Your task to perform on an android device: add a contact Image 0: 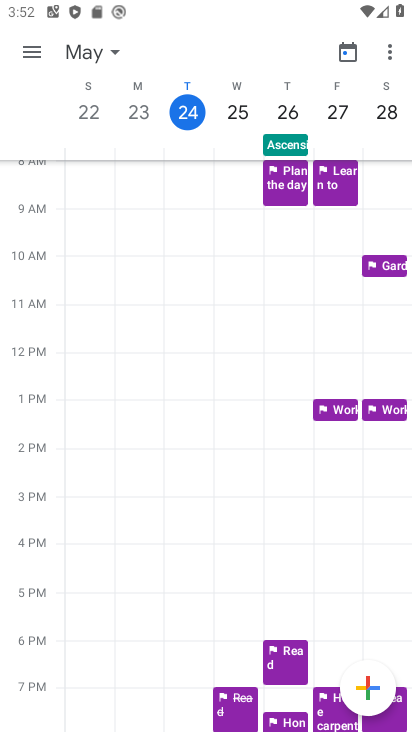
Step 0: press home button
Your task to perform on an android device: add a contact Image 1: 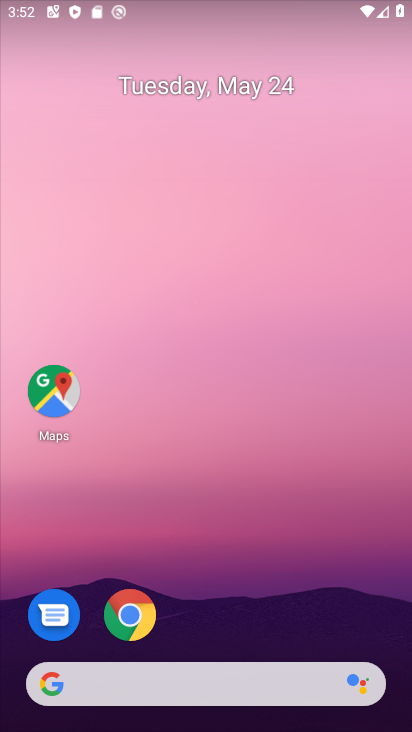
Step 1: drag from (200, 730) to (153, 180)
Your task to perform on an android device: add a contact Image 2: 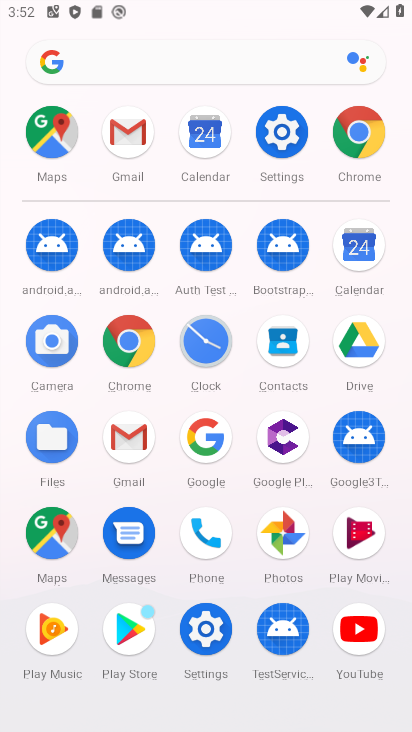
Step 2: click (282, 336)
Your task to perform on an android device: add a contact Image 3: 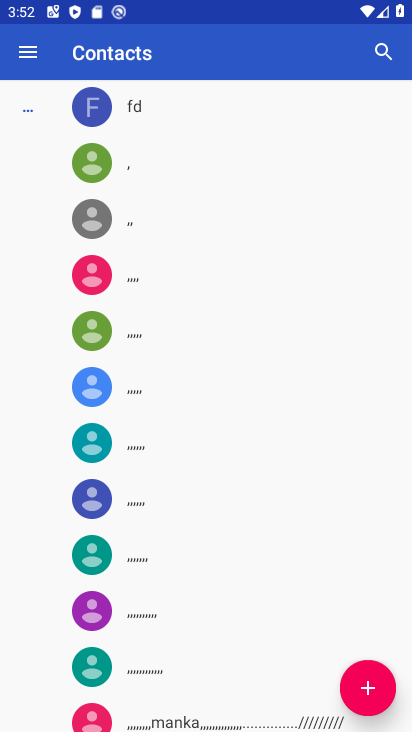
Step 3: click (366, 689)
Your task to perform on an android device: add a contact Image 4: 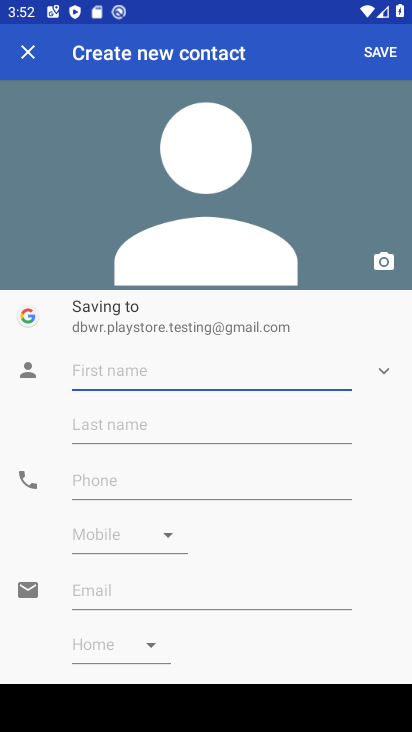
Step 4: type "seeta ma"
Your task to perform on an android device: add a contact Image 5: 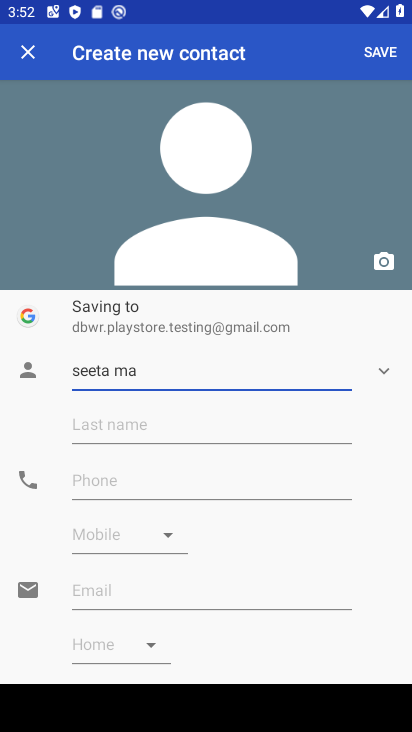
Step 5: click (125, 484)
Your task to perform on an android device: add a contact Image 6: 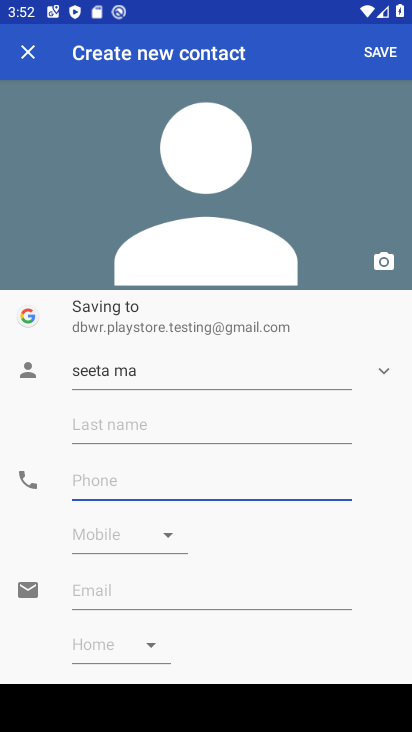
Step 6: type "88888"
Your task to perform on an android device: add a contact Image 7: 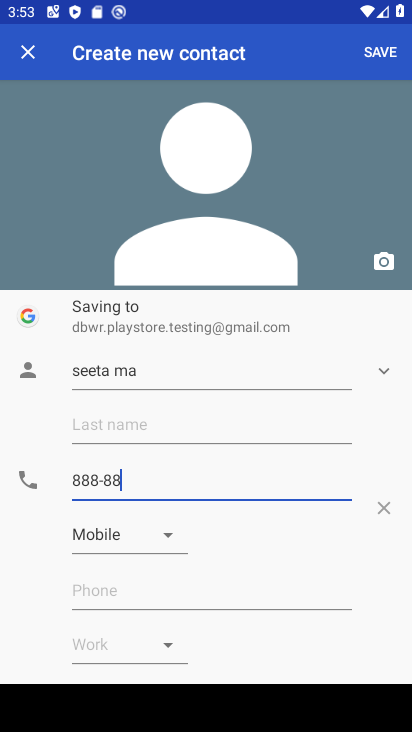
Step 7: click (386, 48)
Your task to perform on an android device: add a contact Image 8: 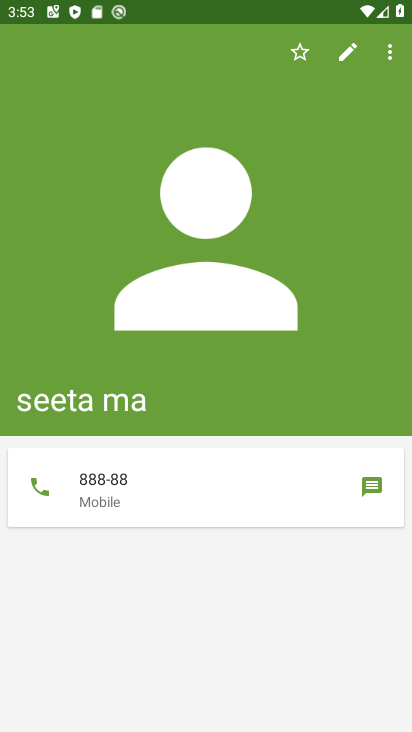
Step 8: task complete